Your task to perform on an android device: turn off improve location accuracy Image 0: 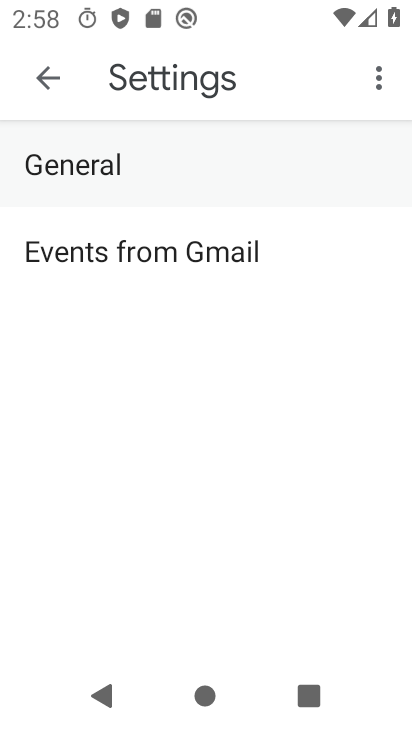
Step 0: press home button
Your task to perform on an android device: turn off improve location accuracy Image 1: 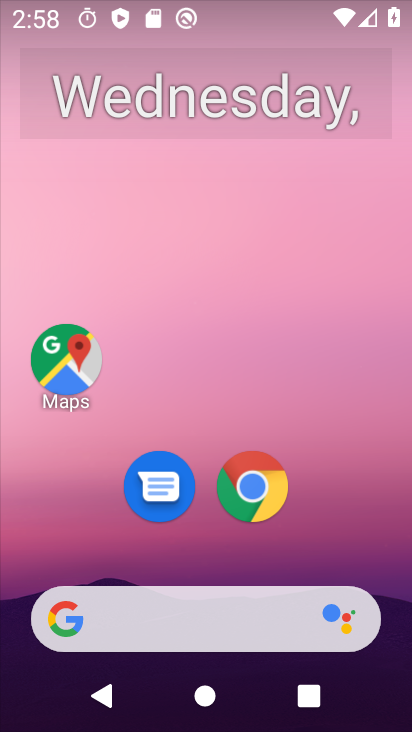
Step 1: drag from (304, 502) to (281, 33)
Your task to perform on an android device: turn off improve location accuracy Image 2: 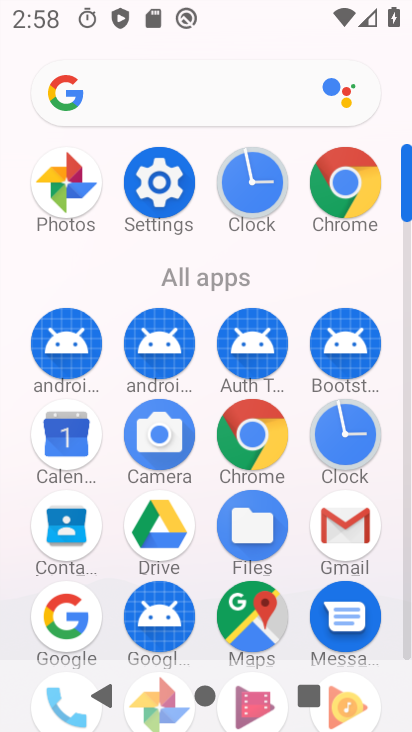
Step 2: click (161, 175)
Your task to perform on an android device: turn off improve location accuracy Image 3: 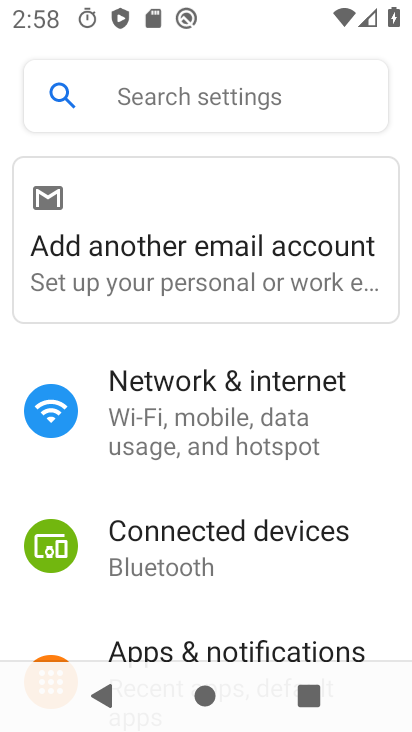
Step 3: drag from (241, 621) to (230, 61)
Your task to perform on an android device: turn off improve location accuracy Image 4: 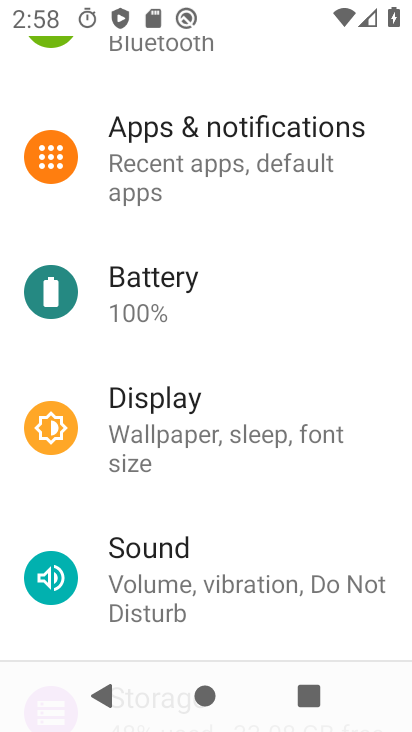
Step 4: drag from (268, 584) to (304, 91)
Your task to perform on an android device: turn off improve location accuracy Image 5: 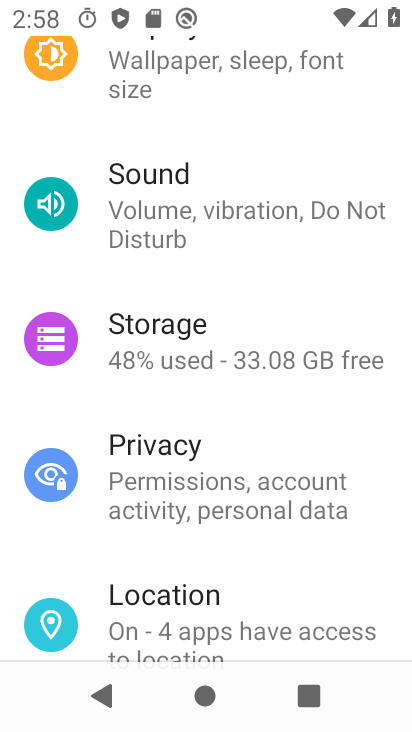
Step 5: drag from (230, 592) to (220, 327)
Your task to perform on an android device: turn off improve location accuracy Image 6: 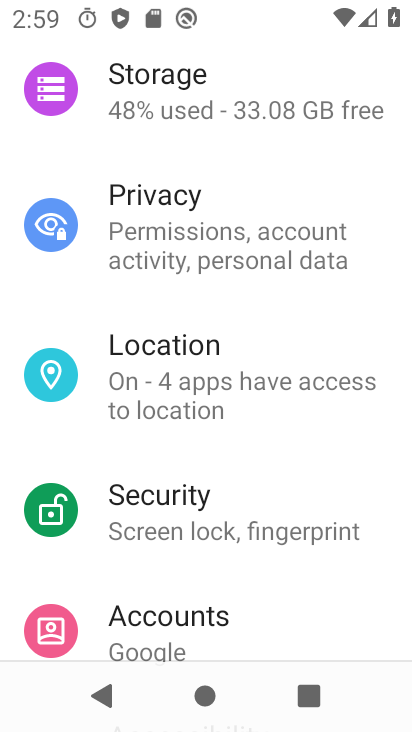
Step 6: click (236, 354)
Your task to perform on an android device: turn off improve location accuracy Image 7: 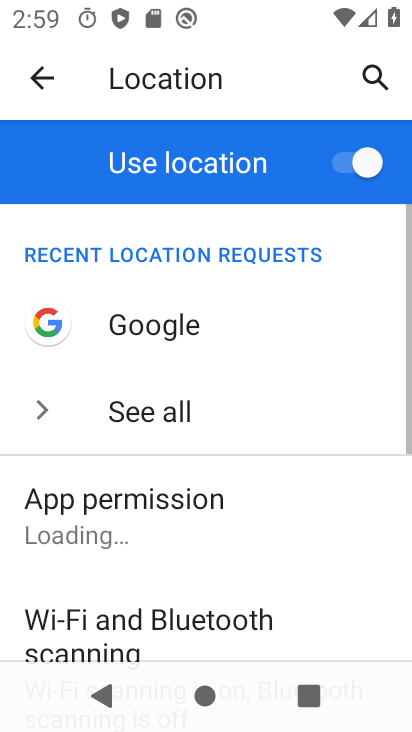
Step 7: drag from (229, 607) to (243, 85)
Your task to perform on an android device: turn off improve location accuracy Image 8: 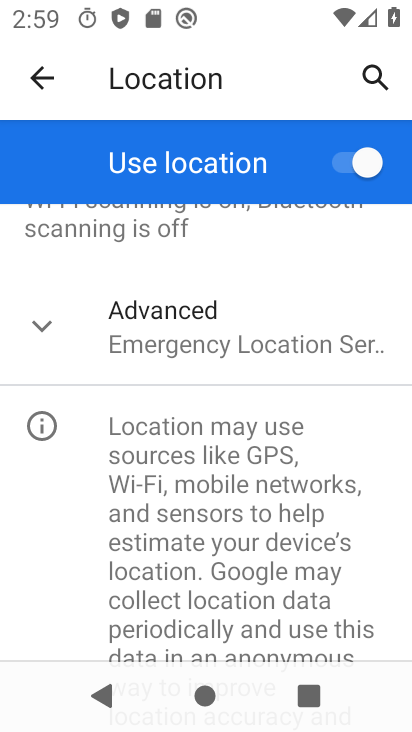
Step 8: click (155, 363)
Your task to perform on an android device: turn off improve location accuracy Image 9: 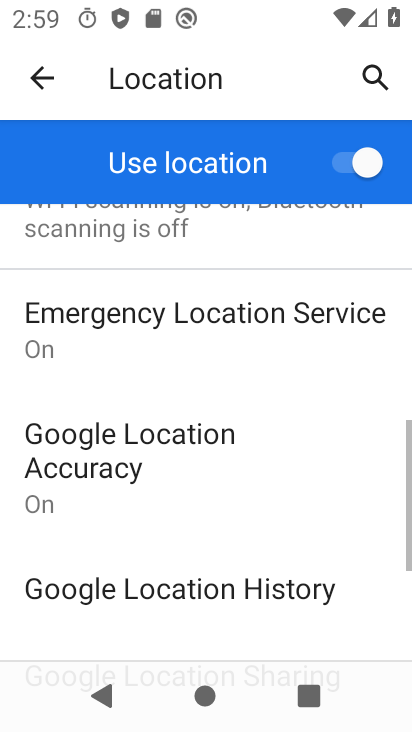
Step 9: click (153, 452)
Your task to perform on an android device: turn off improve location accuracy Image 10: 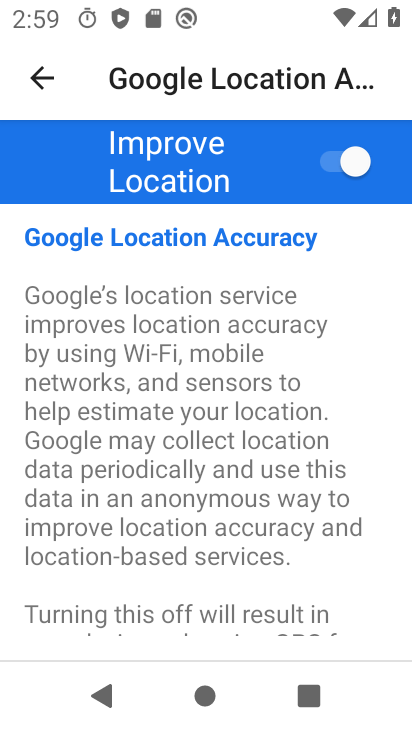
Step 10: click (353, 156)
Your task to perform on an android device: turn off improve location accuracy Image 11: 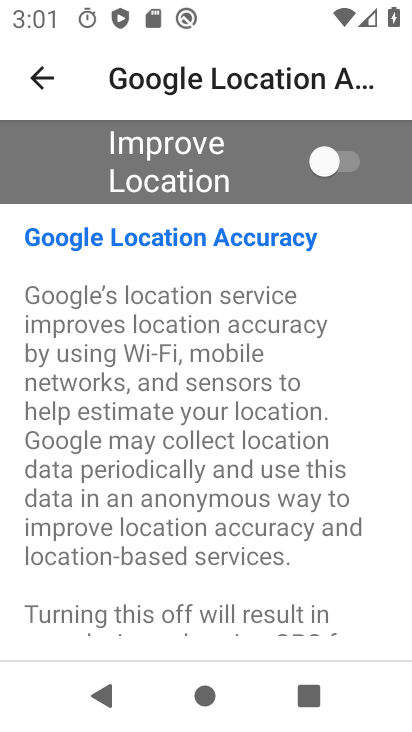
Step 11: task complete